Your task to perform on an android device: turn notification dots on Image 0: 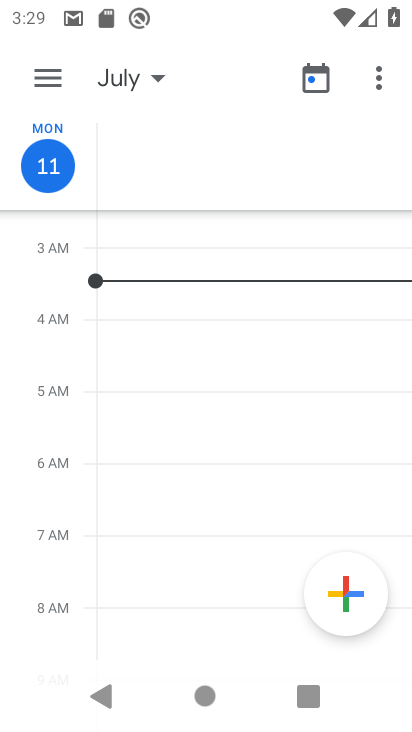
Step 0: press home button
Your task to perform on an android device: turn notification dots on Image 1: 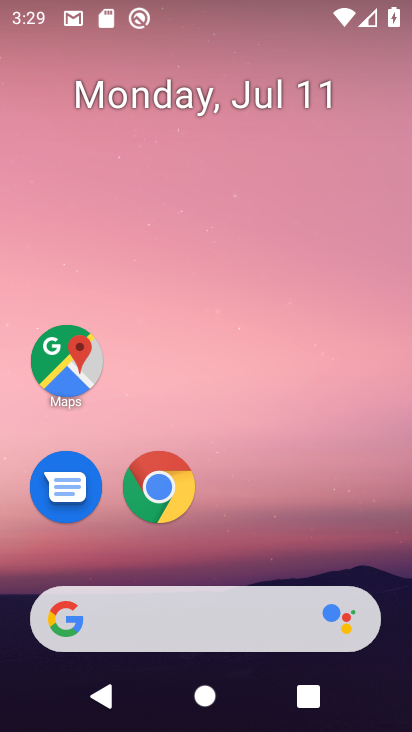
Step 1: drag from (155, 625) to (310, 71)
Your task to perform on an android device: turn notification dots on Image 2: 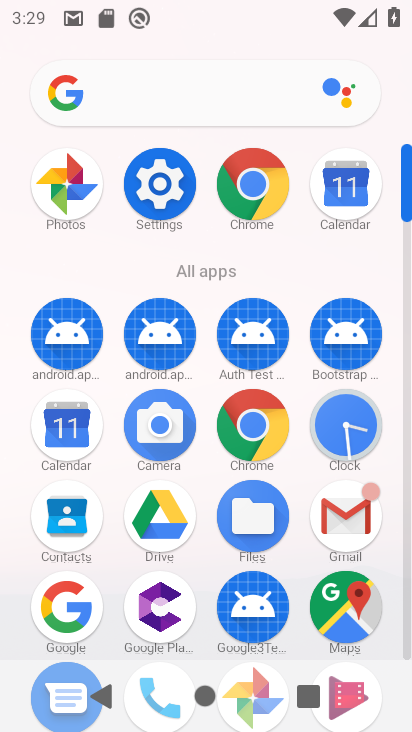
Step 2: click (165, 189)
Your task to perform on an android device: turn notification dots on Image 3: 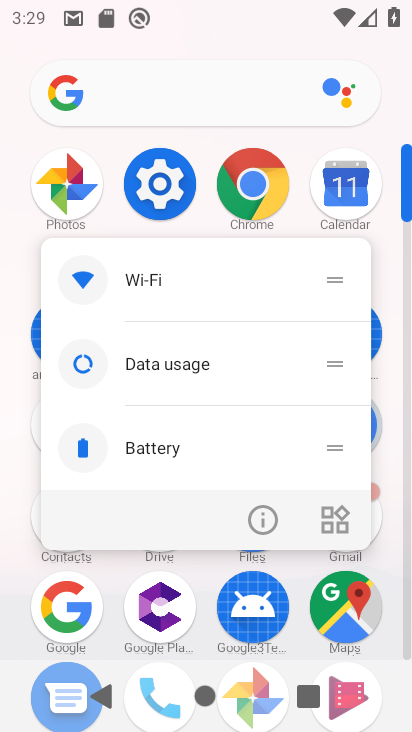
Step 3: click (162, 183)
Your task to perform on an android device: turn notification dots on Image 4: 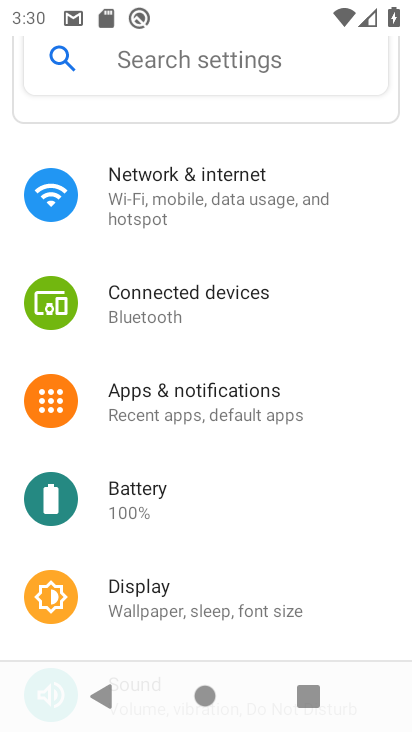
Step 4: click (190, 406)
Your task to perform on an android device: turn notification dots on Image 5: 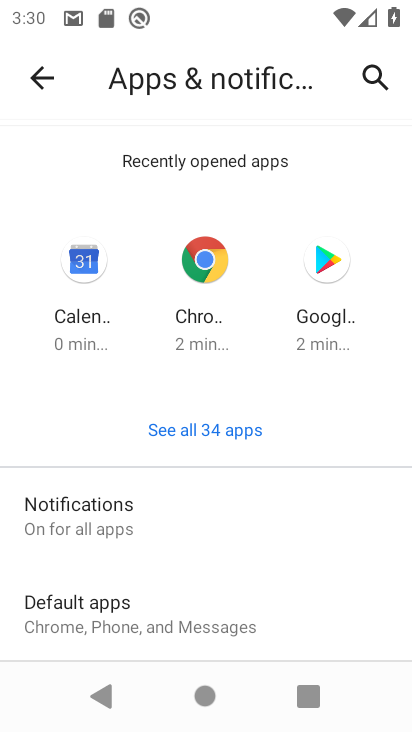
Step 5: click (127, 521)
Your task to perform on an android device: turn notification dots on Image 6: 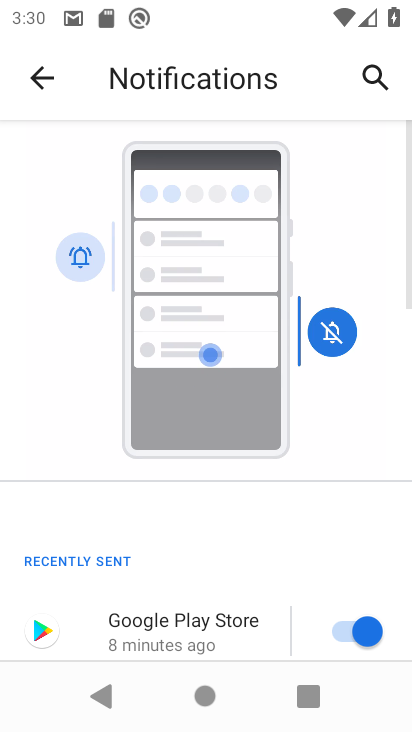
Step 6: drag from (197, 575) to (333, 92)
Your task to perform on an android device: turn notification dots on Image 7: 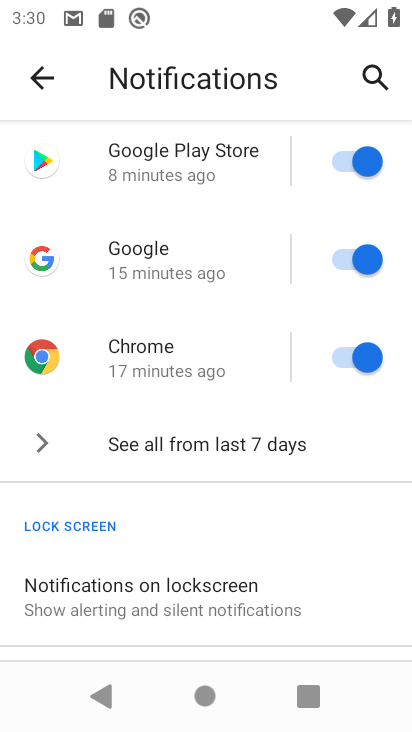
Step 7: drag from (180, 554) to (310, 65)
Your task to perform on an android device: turn notification dots on Image 8: 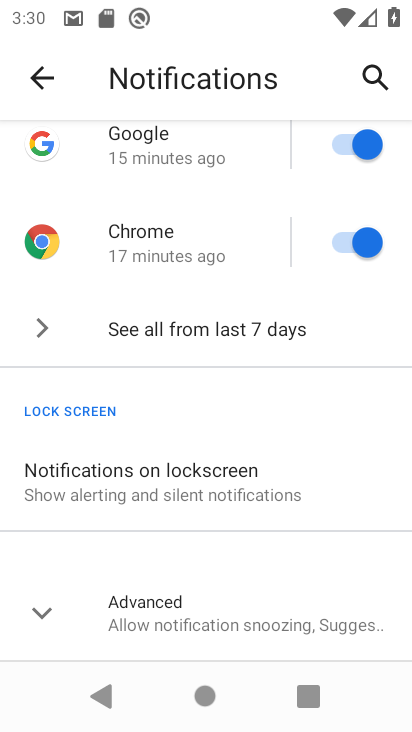
Step 8: click (136, 602)
Your task to perform on an android device: turn notification dots on Image 9: 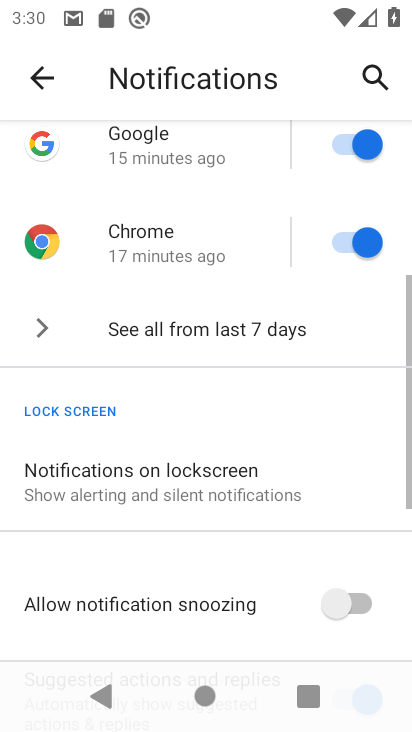
Step 9: task complete